Your task to perform on an android device: Open Google Maps and go to "Timeline" Image 0: 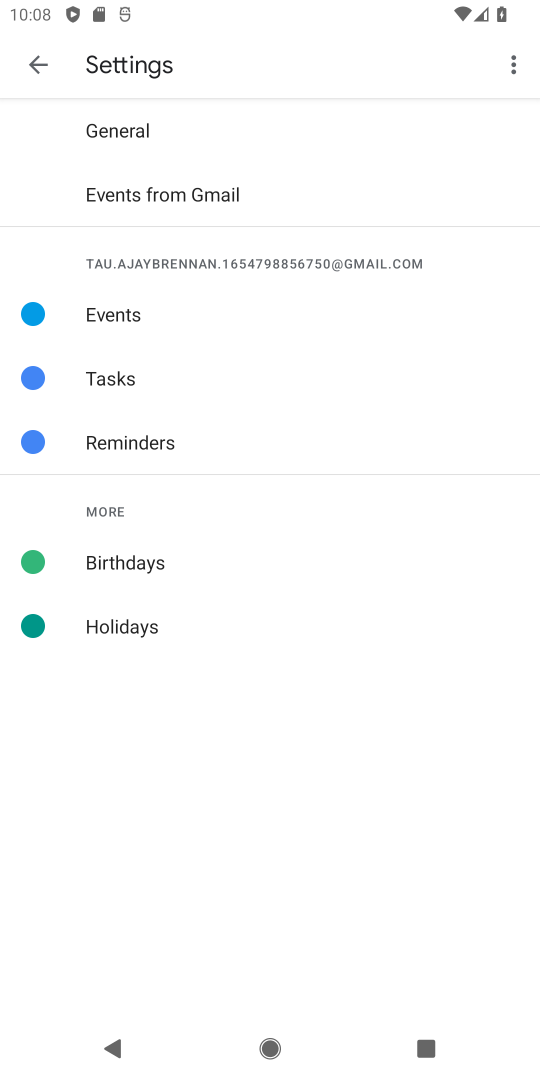
Step 0: press home button
Your task to perform on an android device: Open Google Maps and go to "Timeline" Image 1: 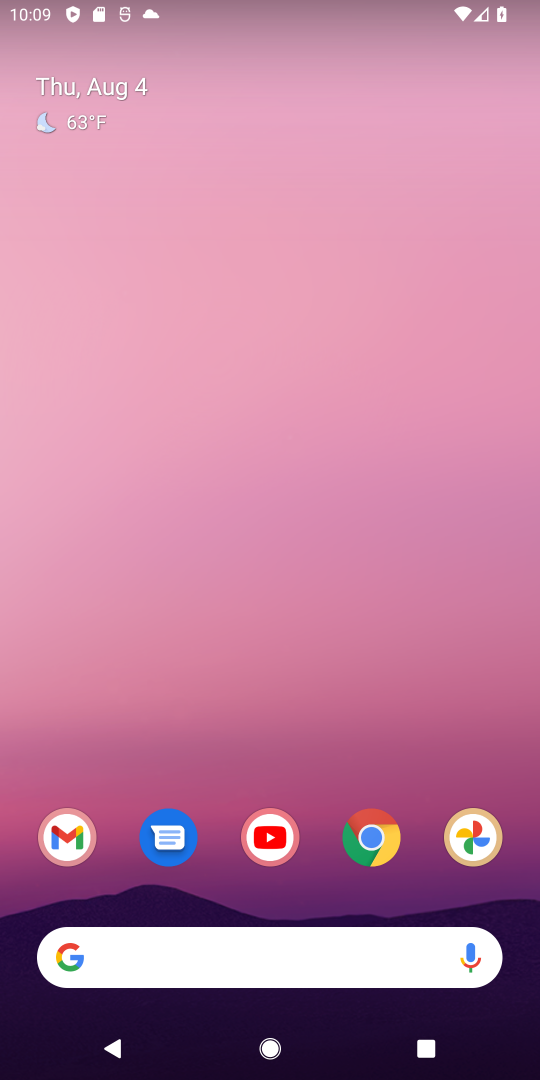
Step 1: drag from (295, 894) to (283, 2)
Your task to perform on an android device: Open Google Maps and go to "Timeline" Image 2: 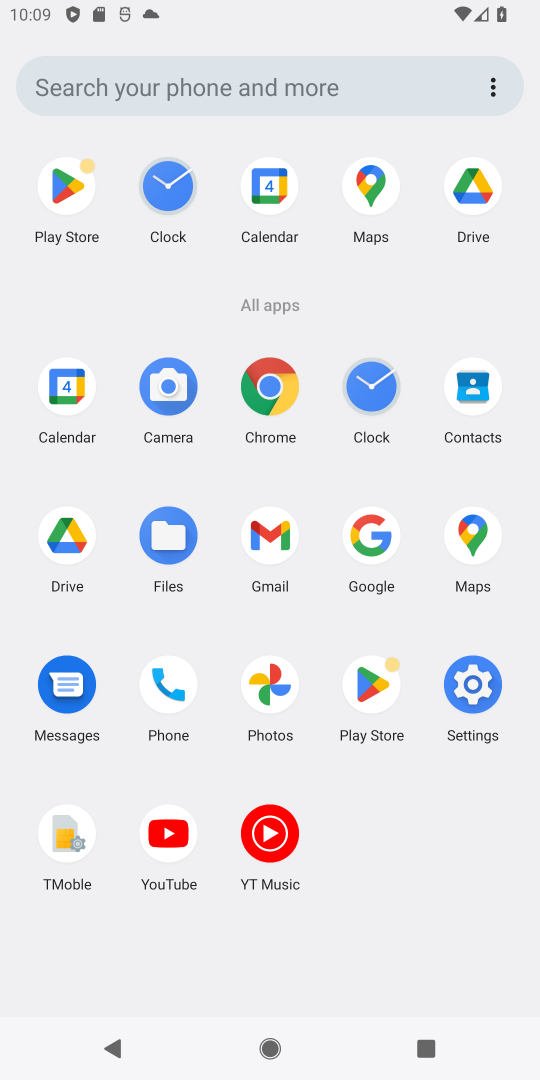
Step 2: click (461, 525)
Your task to perform on an android device: Open Google Maps and go to "Timeline" Image 3: 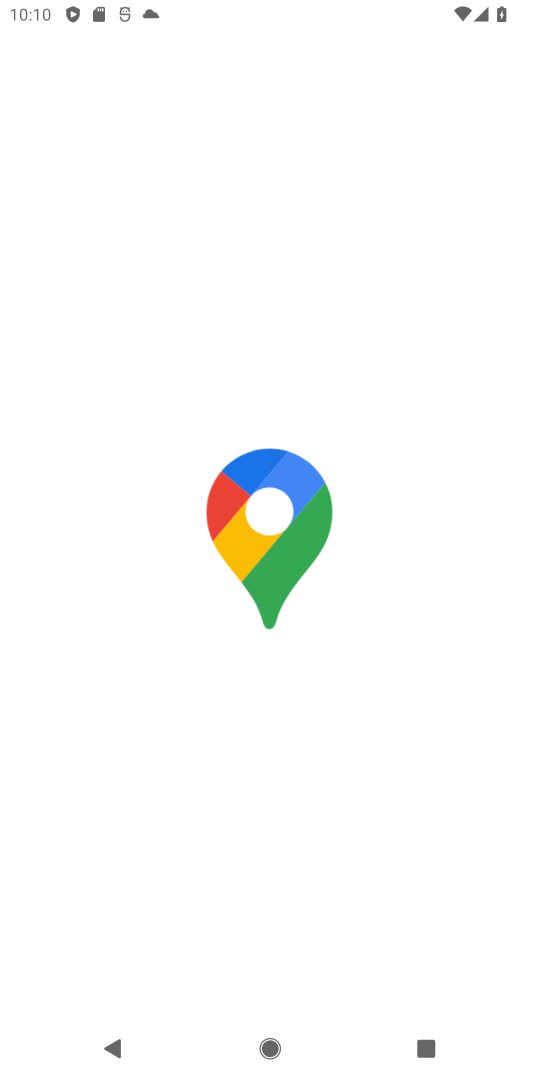
Step 3: task complete